Your task to perform on an android device: Open Google Chrome Image 0: 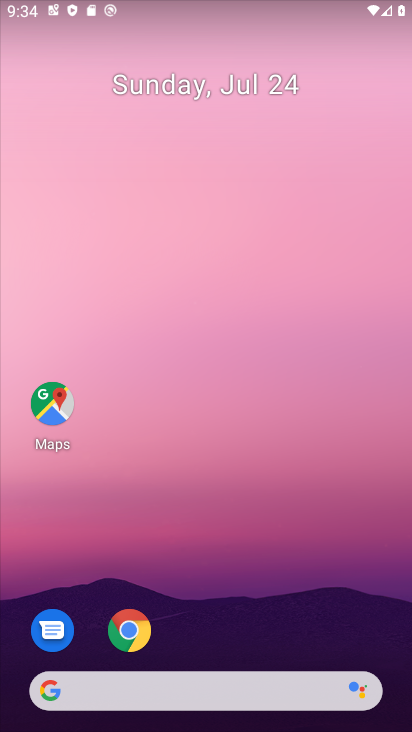
Step 0: click (138, 625)
Your task to perform on an android device: Open Google Chrome Image 1: 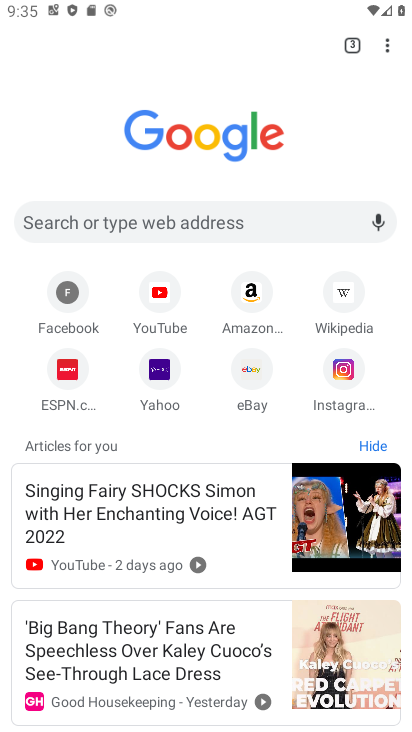
Step 1: task complete